Your task to perform on an android device: Open location settings Image 0: 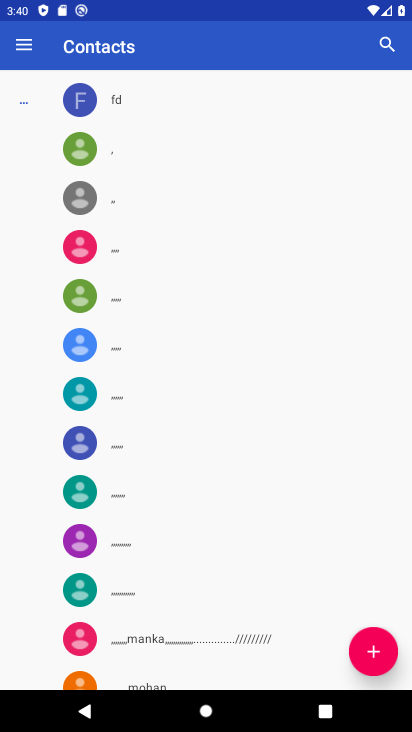
Step 0: press home button
Your task to perform on an android device: Open location settings Image 1: 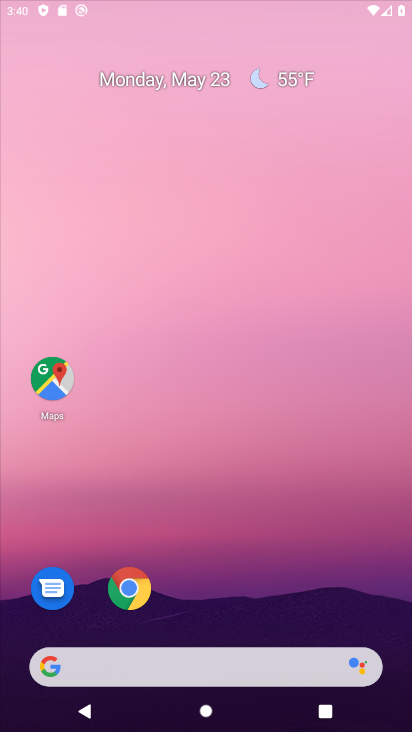
Step 1: drag from (231, 584) to (161, 21)
Your task to perform on an android device: Open location settings Image 2: 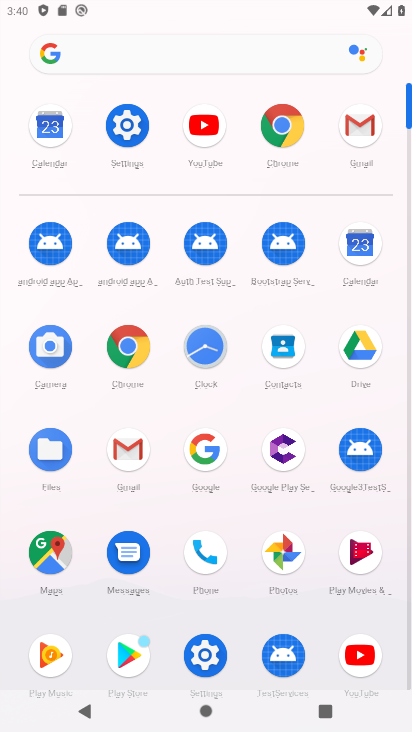
Step 2: click (125, 125)
Your task to perform on an android device: Open location settings Image 3: 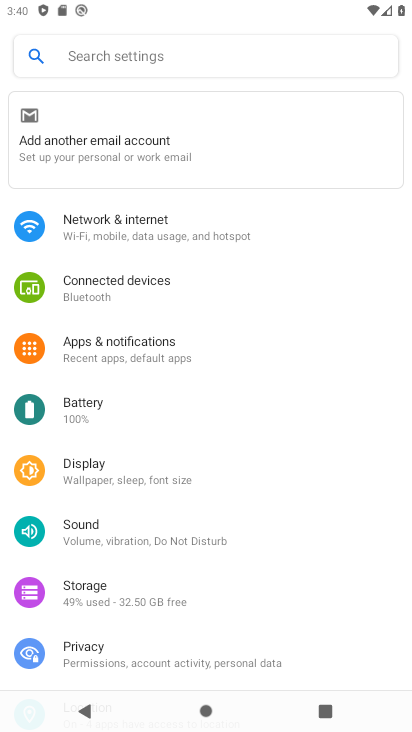
Step 3: drag from (163, 629) to (173, 147)
Your task to perform on an android device: Open location settings Image 4: 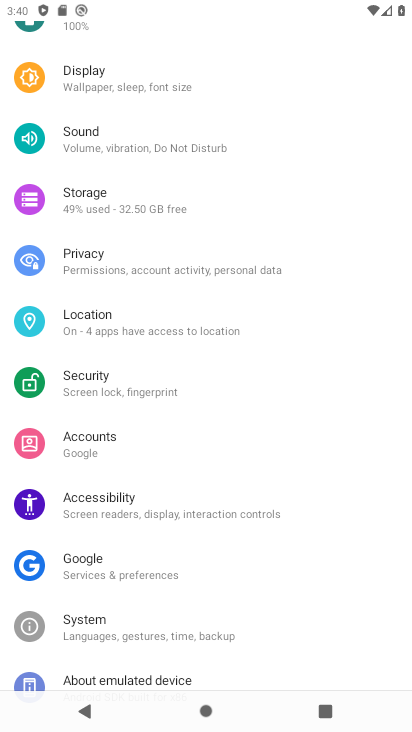
Step 4: click (92, 326)
Your task to perform on an android device: Open location settings Image 5: 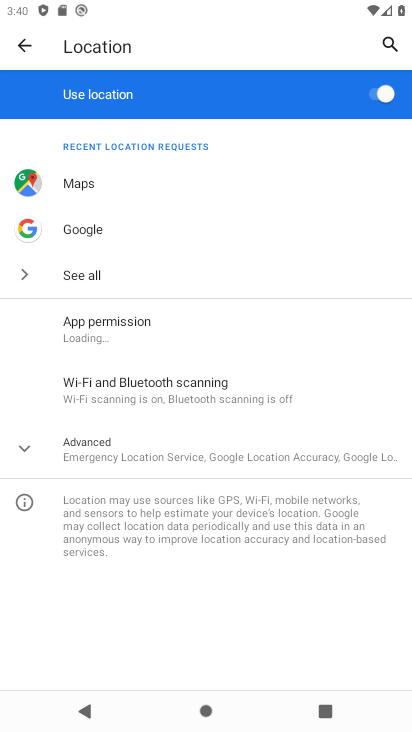
Step 5: task complete